Your task to perform on an android device: check out phone information Image 0: 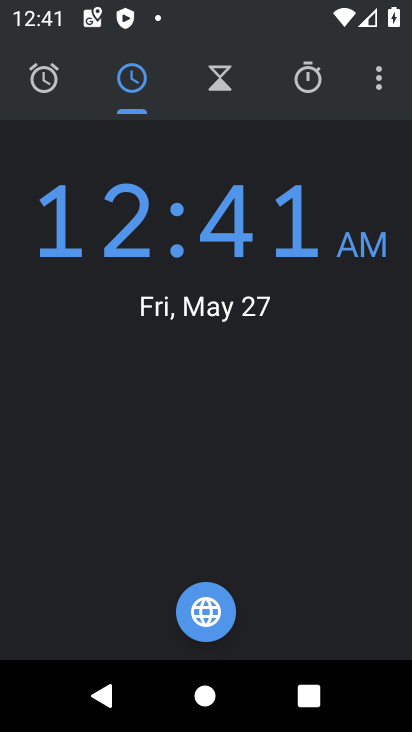
Step 0: press home button
Your task to perform on an android device: check out phone information Image 1: 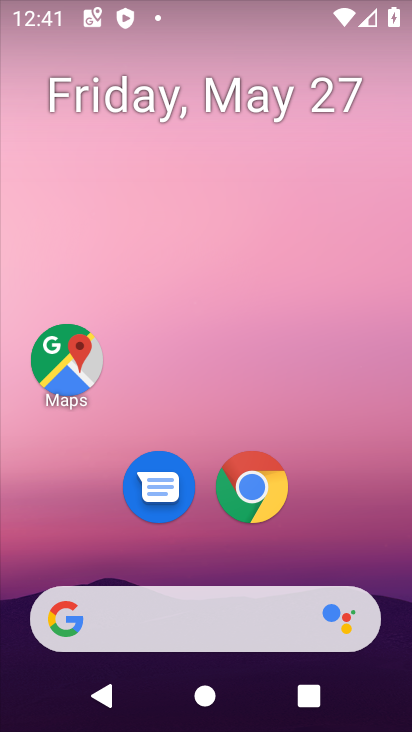
Step 1: drag from (207, 555) to (211, 130)
Your task to perform on an android device: check out phone information Image 2: 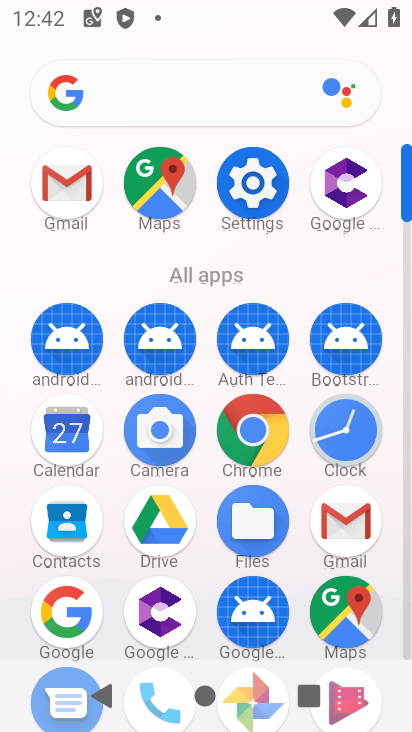
Step 2: click (251, 180)
Your task to perform on an android device: check out phone information Image 3: 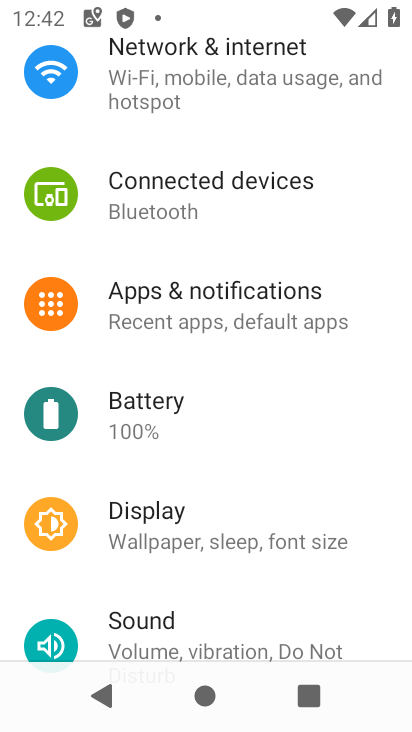
Step 3: drag from (323, 618) to (296, 169)
Your task to perform on an android device: check out phone information Image 4: 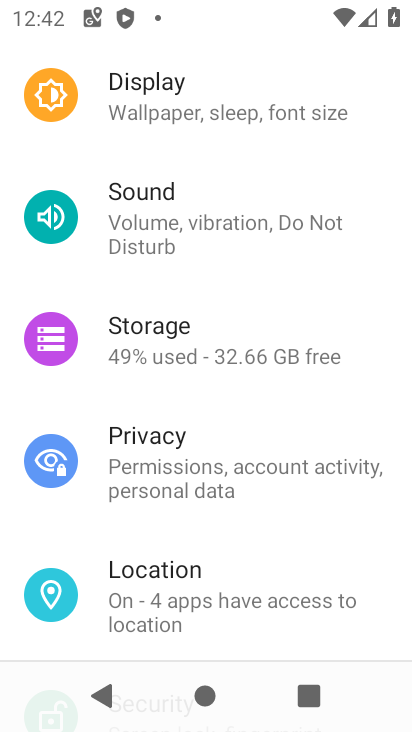
Step 4: drag from (293, 629) to (322, 136)
Your task to perform on an android device: check out phone information Image 5: 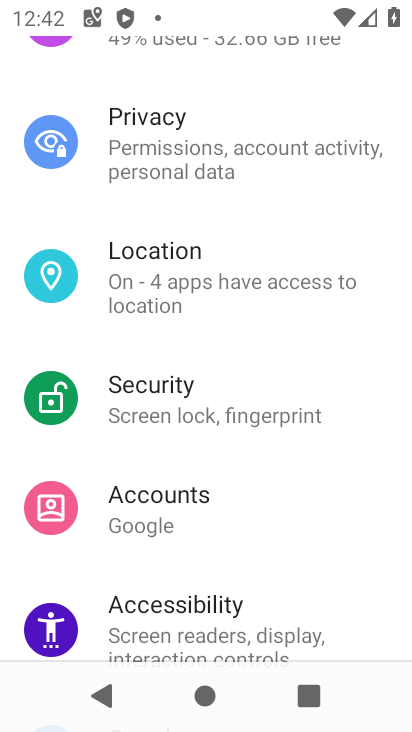
Step 5: drag from (280, 620) to (310, 148)
Your task to perform on an android device: check out phone information Image 6: 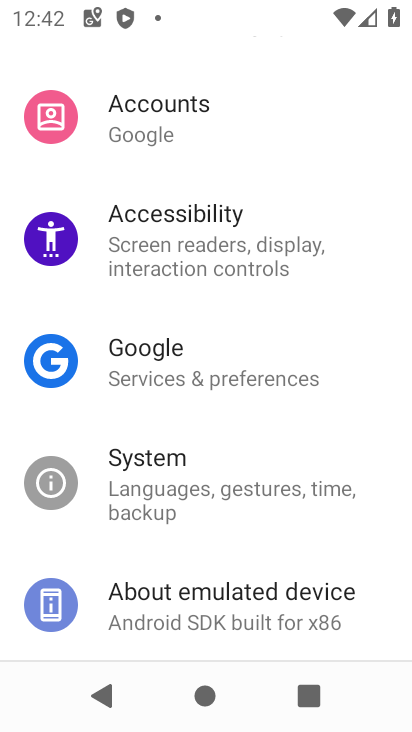
Step 6: click (203, 599)
Your task to perform on an android device: check out phone information Image 7: 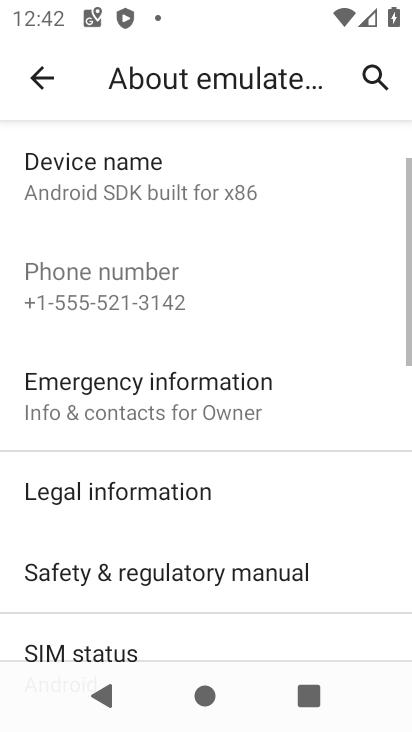
Step 7: task complete